Your task to perform on an android device: What is the recent news? Image 0: 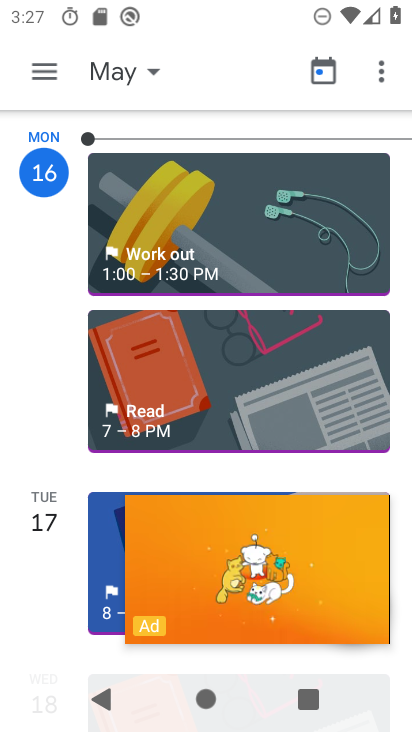
Step 0: press home button
Your task to perform on an android device: What is the recent news? Image 1: 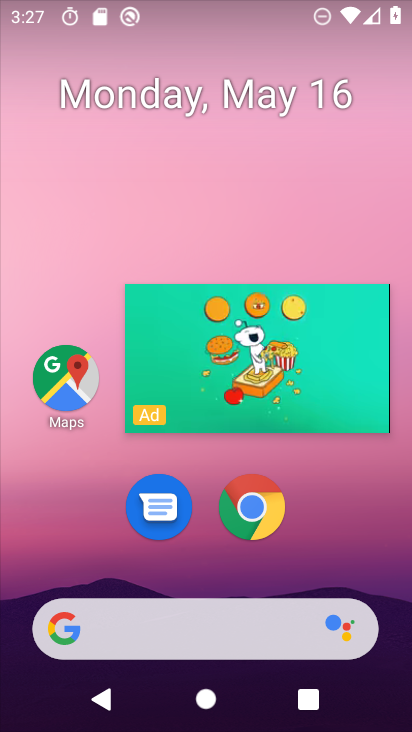
Step 1: click (372, 306)
Your task to perform on an android device: What is the recent news? Image 2: 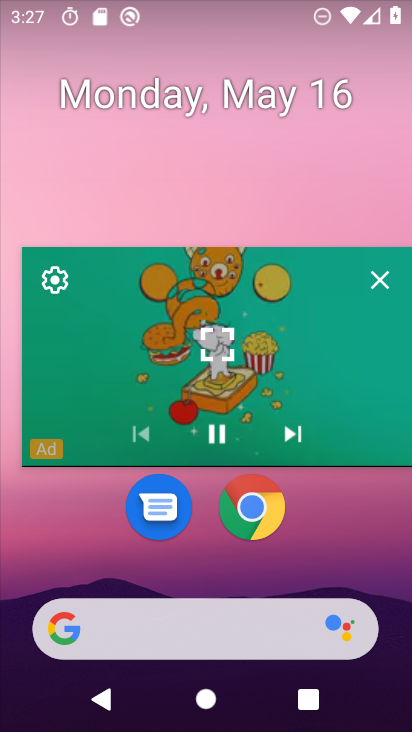
Step 2: click (383, 281)
Your task to perform on an android device: What is the recent news? Image 3: 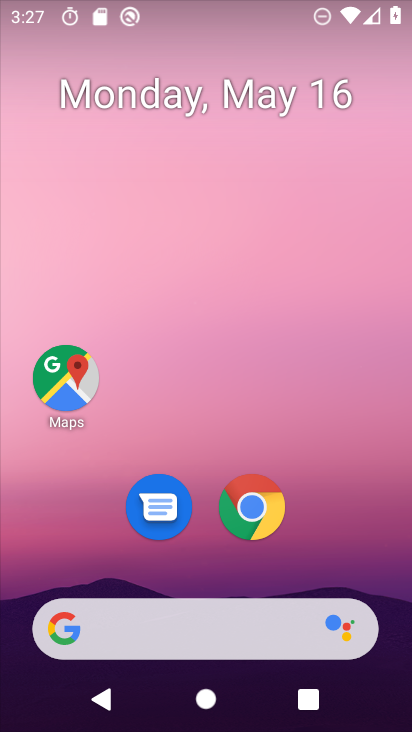
Step 3: click (262, 485)
Your task to perform on an android device: What is the recent news? Image 4: 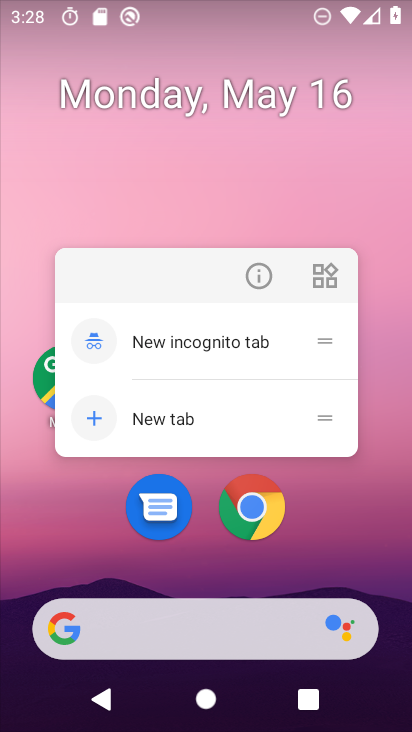
Step 4: click (254, 517)
Your task to perform on an android device: What is the recent news? Image 5: 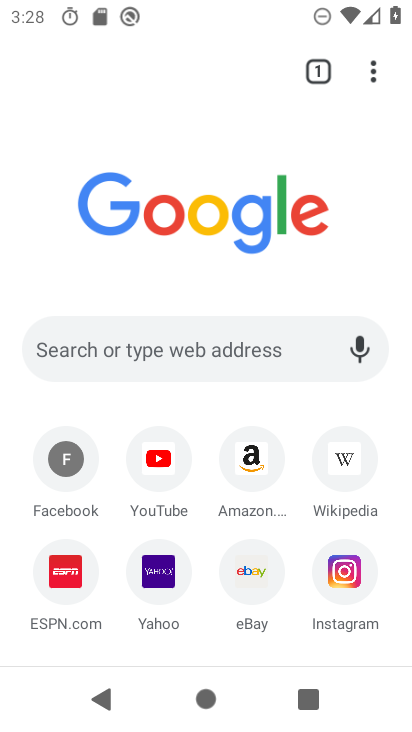
Step 5: task complete